Your task to perform on an android device: turn off location Image 0: 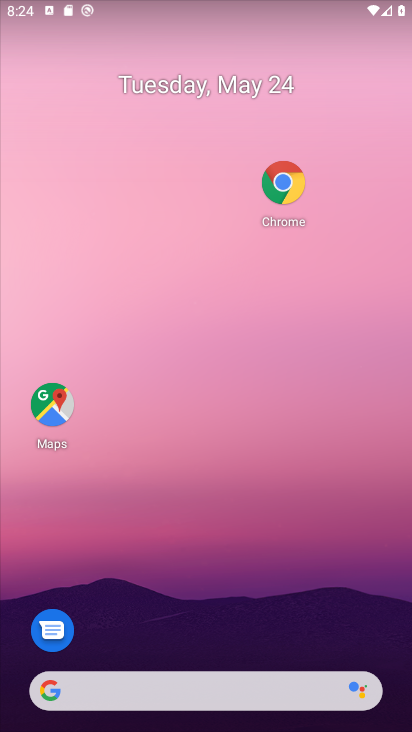
Step 0: drag from (251, 707) to (123, 26)
Your task to perform on an android device: turn off location Image 1: 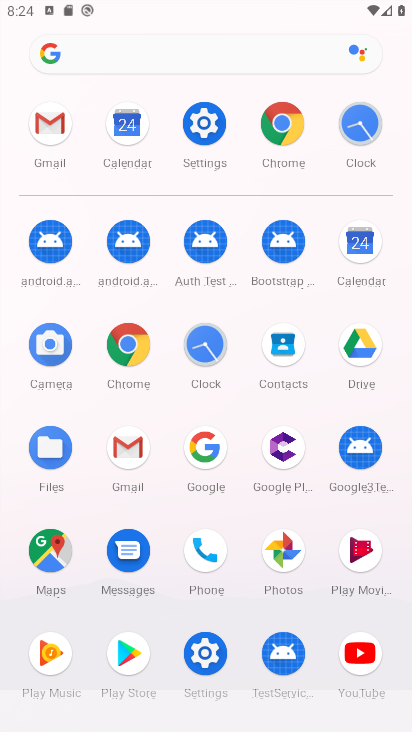
Step 1: click (215, 129)
Your task to perform on an android device: turn off location Image 2: 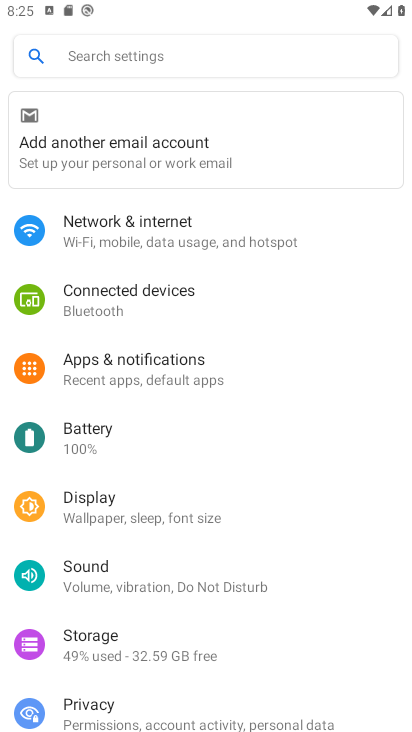
Step 2: drag from (175, 486) to (144, 300)
Your task to perform on an android device: turn off location Image 3: 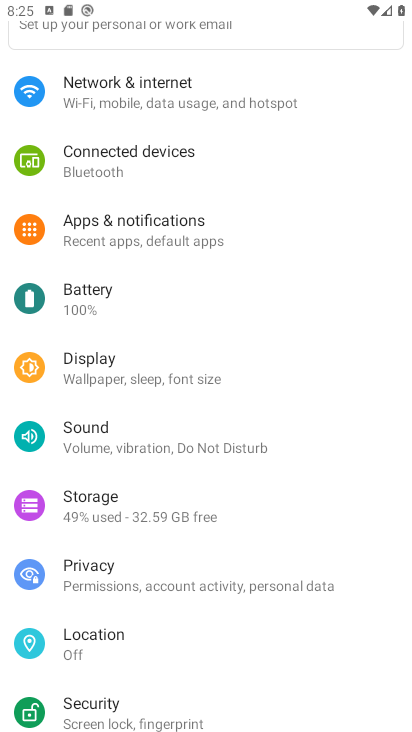
Step 3: click (162, 637)
Your task to perform on an android device: turn off location Image 4: 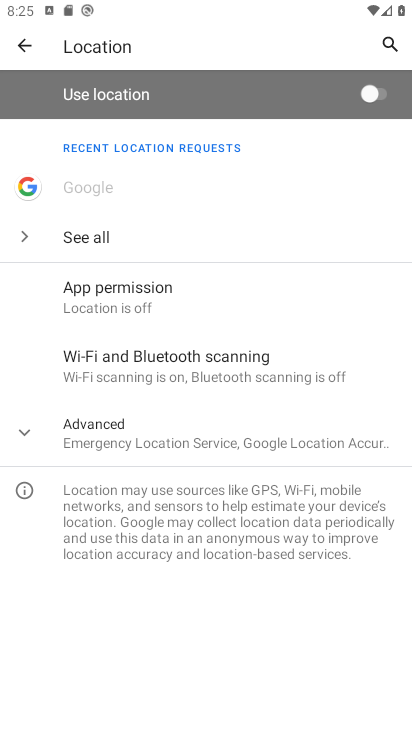
Step 4: click (343, 98)
Your task to perform on an android device: turn off location Image 5: 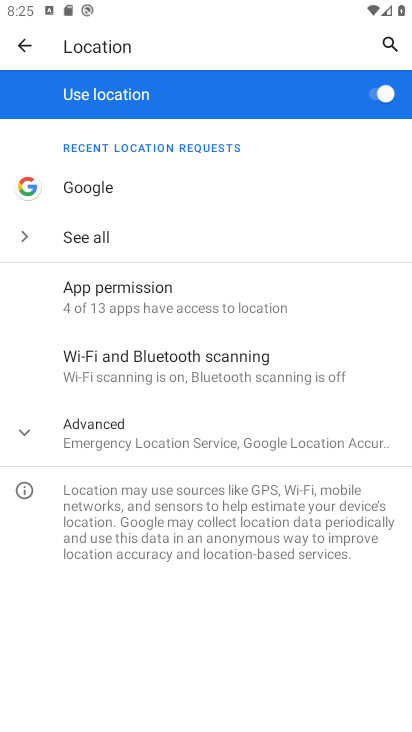
Step 5: click (370, 99)
Your task to perform on an android device: turn off location Image 6: 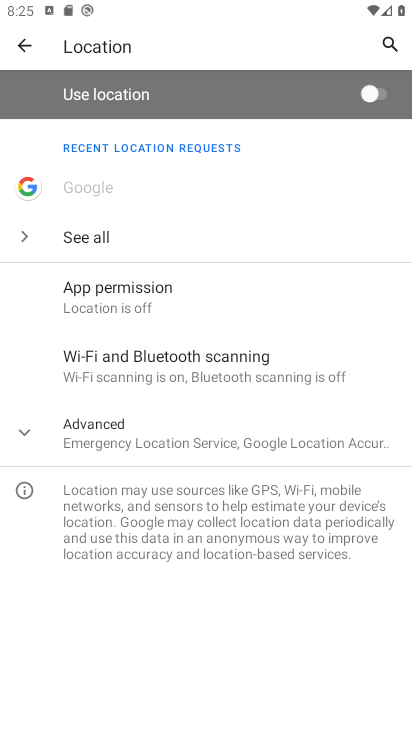
Step 6: task complete